Your task to perform on an android device: add a contact in the contacts app Image 0: 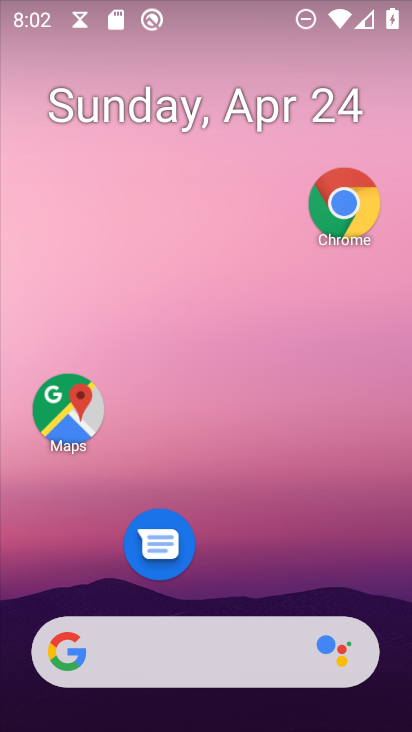
Step 0: drag from (174, 624) to (289, 88)
Your task to perform on an android device: add a contact in the contacts app Image 1: 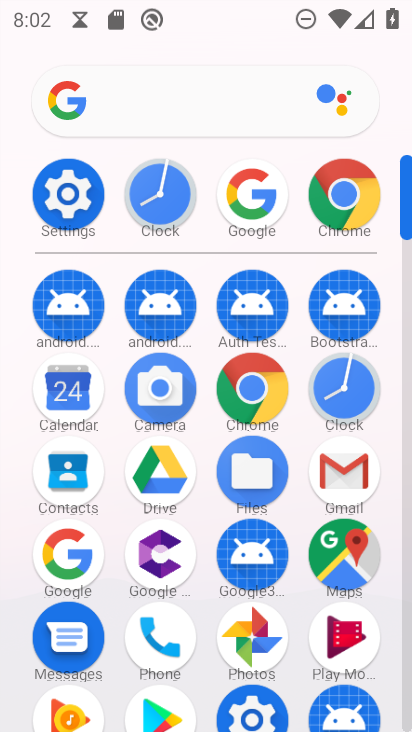
Step 1: click (72, 479)
Your task to perform on an android device: add a contact in the contacts app Image 2: 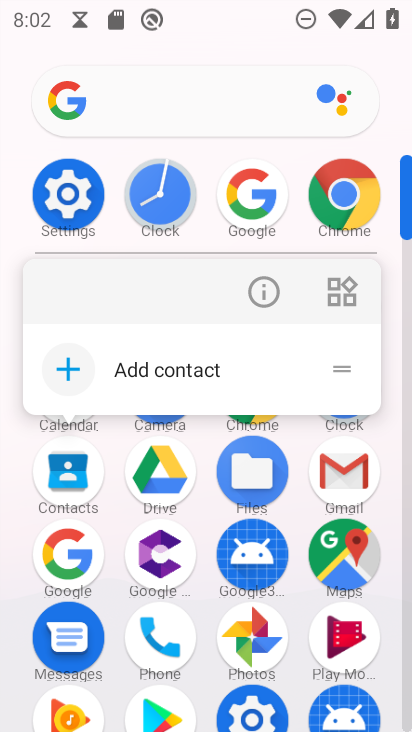
Step 2: click (62, 480)
Your task to perform on an android device: add a contact in the contacts app Image 3: 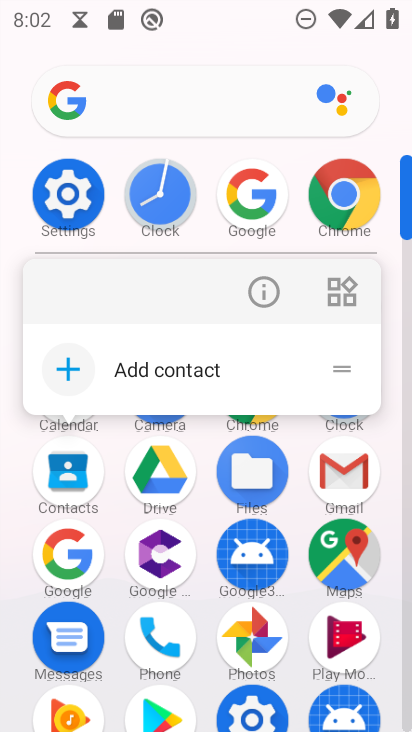
Step 3: click (62, 480)
Your task to perform on an android device: add a contact in the contacts app Image 4: 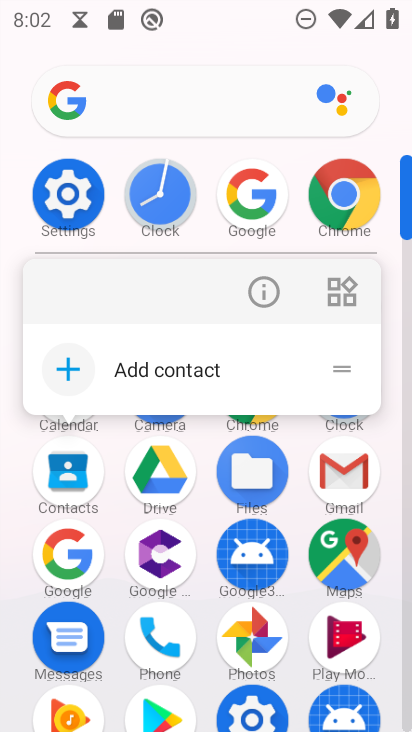
Step 4: click (67, 474)
Your task to perform on an android device: add a contact in the contacts app Image 5: 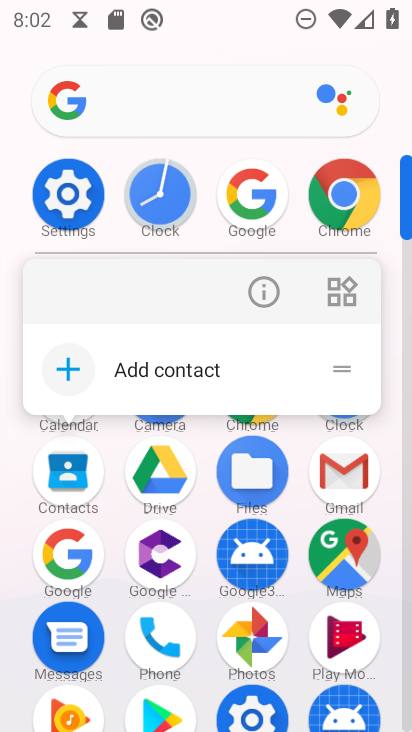
Step 5: click (65, 477)
Your task to perform on an android device: add a contact in the contacts app Image 6: 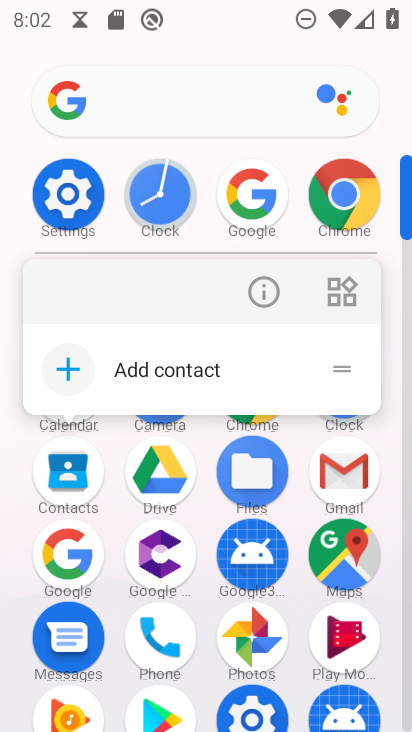
Step 6: click (68, 492)
Your task to perform on an android device: add a contact in the contacts app Image 7: 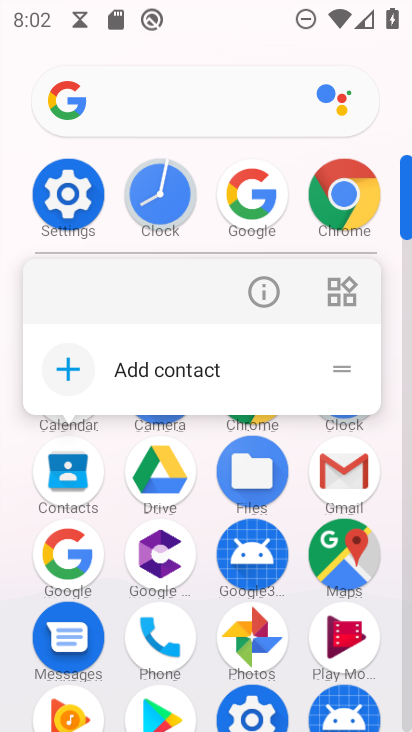
Step 7: click (58, 480)
Your task to perform on an android device: add a contact in the contacts app Image 8: 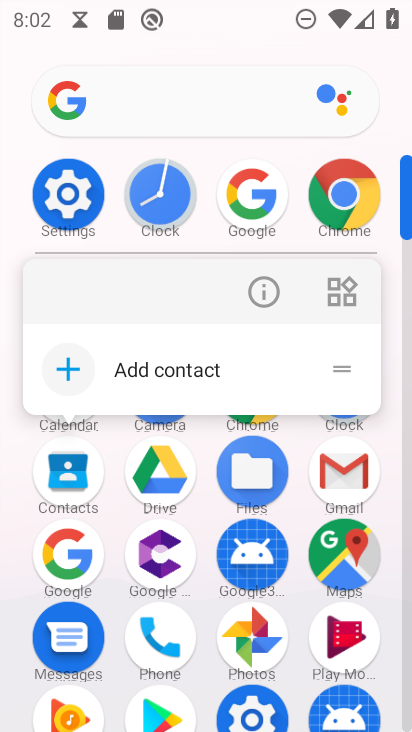
Step 8: click (68, 472)
Your task to perform on an android device: add a contact in the contacts app Image 9: 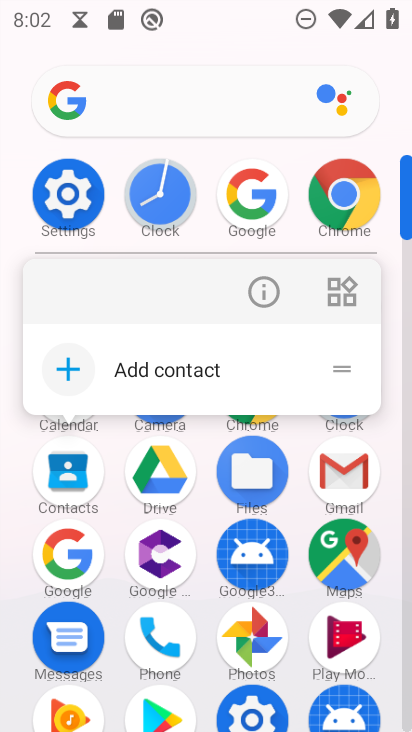
Step 9: click (71, 477)
Your task to perform on an android device: add a contact in the contacts app Image 10: 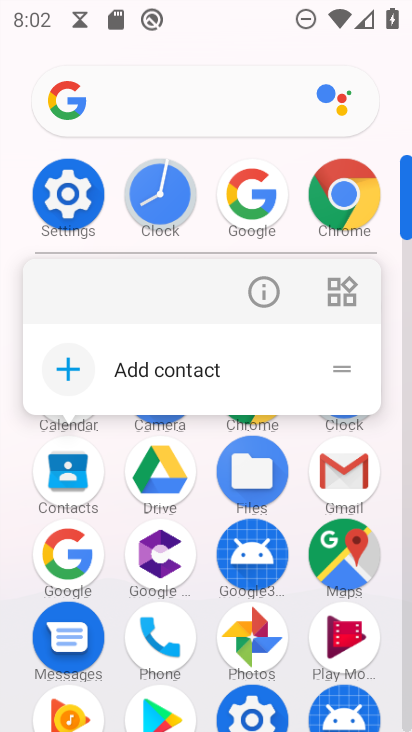
Step 10: click (65, 505)
Your task to perform on an android device: add a contact in the contacts app Image 11: 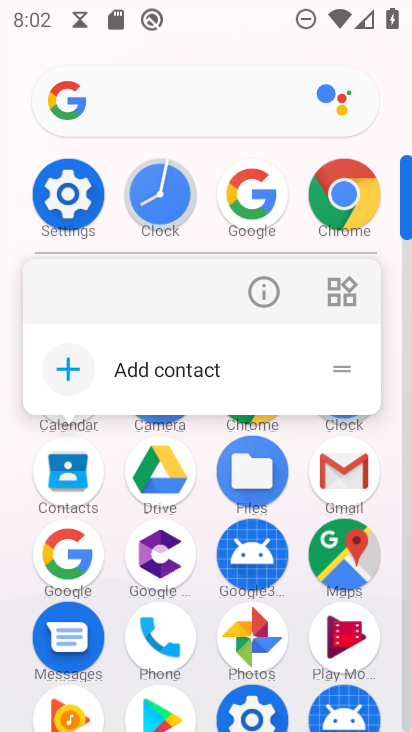
Step 11: click (75, 477)
Your task to perform on an android device: add a contact in the contacts app Image 12: 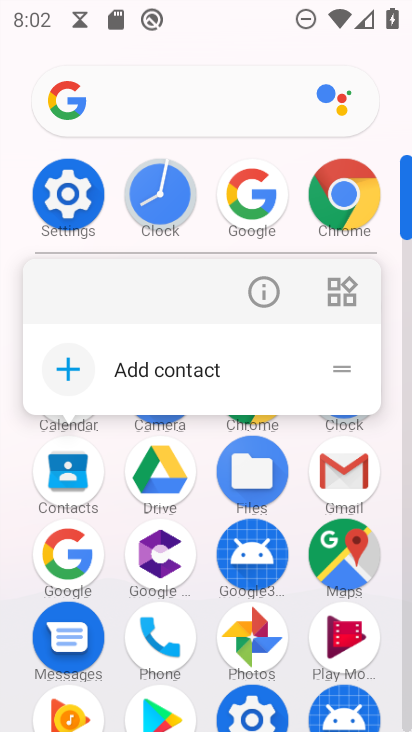
Step 12: click (75, 477)
Your task to perform on an android device: add a contact in the contacts app Image 13: 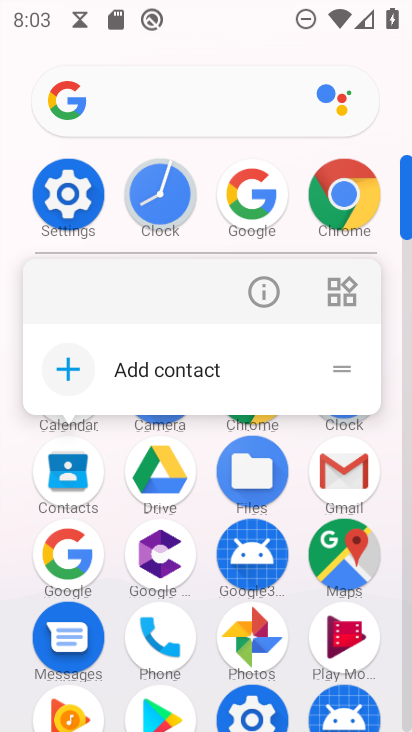
Step 13: click (71, 477)
Your task to perform on an android device: add a contact in the contacts app Image 14: 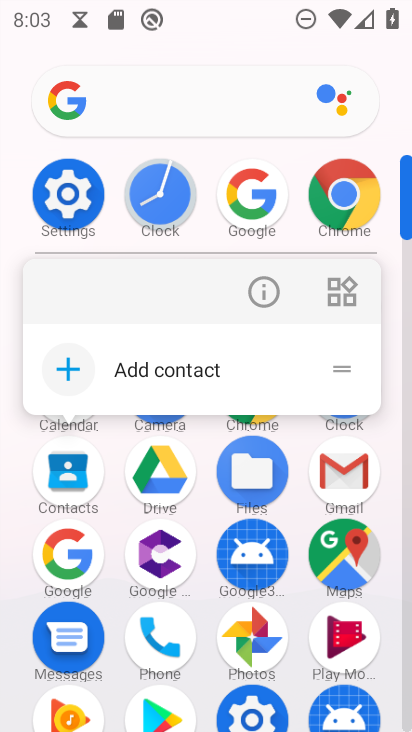
Step 14: click (74, 478)
Your task to perform on an android device: add a contact in the contacts app Image 15: 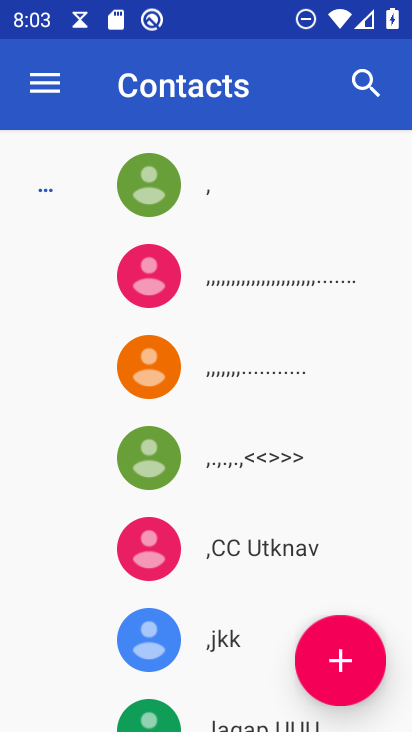
Step 15: click (338, 660)
Your task to perform on an android device: add a contact in the contacts app Image 16: 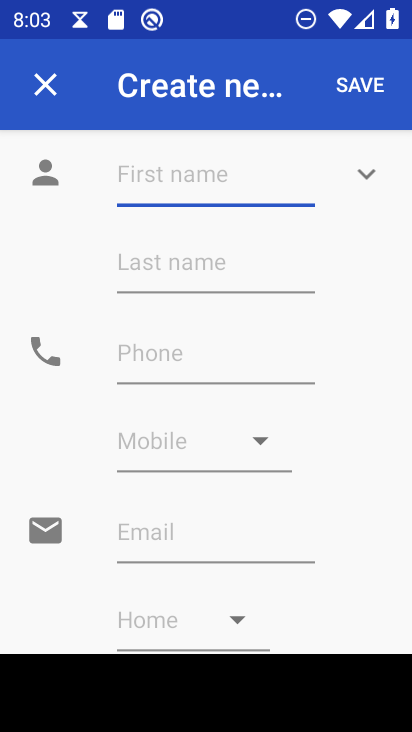
Step 16: click (151, 167)
Your task to perform on an android device: add a contact in the contacts app Image 17: 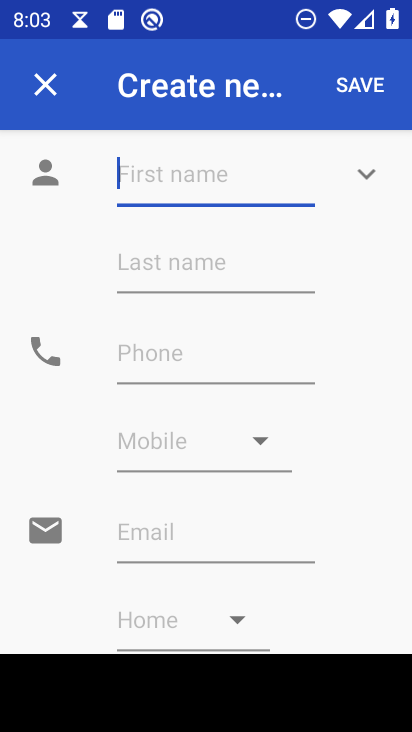
Step 17: type "vbgtyhgfjhgg"
Your task to perform on an android device: add a contact in the contacts app Image 18: 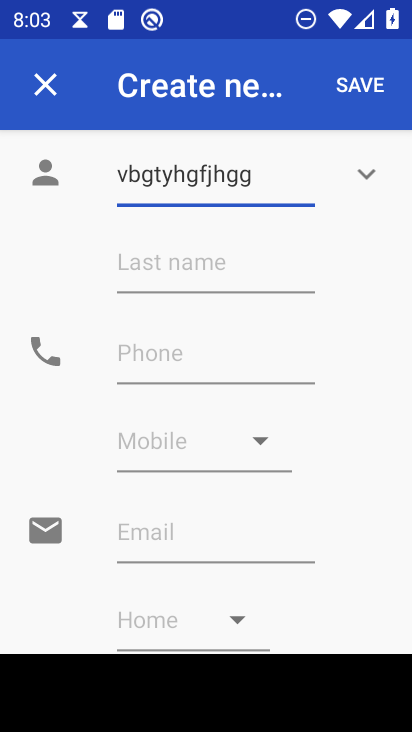
Step 18: click (128, 350)
Your task to perform on an android device: add a contact in the contacts app Image 19: 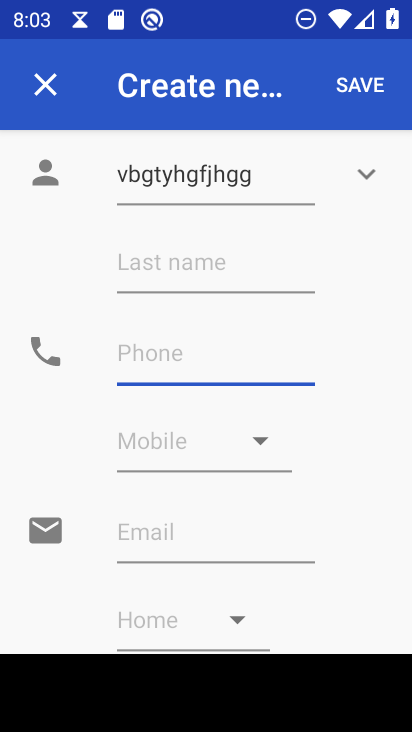
Step 19: type "956748765"
Your task to perform on an android device: add a contact in the contacts app Image 20: 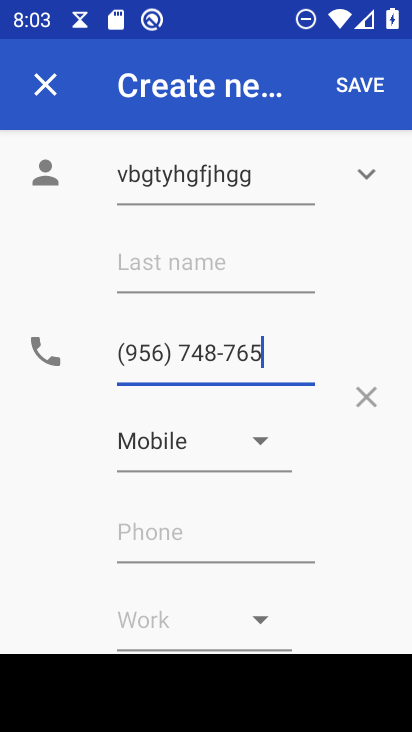
Step 20: click (355, 93)
Your task to perform on an android device: add a contact in the contacts app Image 21: 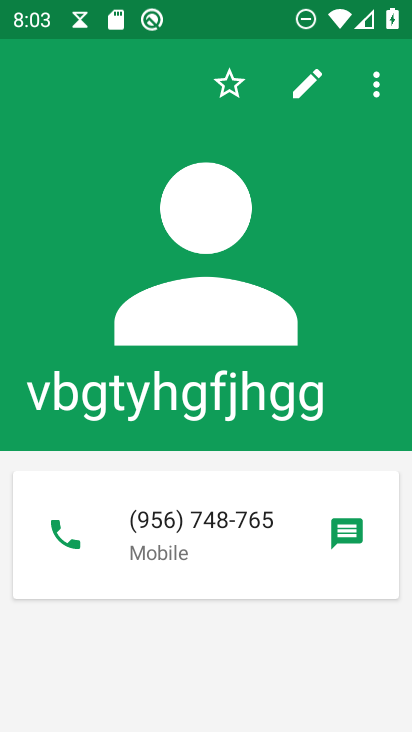
Step 21: task complete